Your task to perform on an android device: change your default location settings in chrome Image 0: 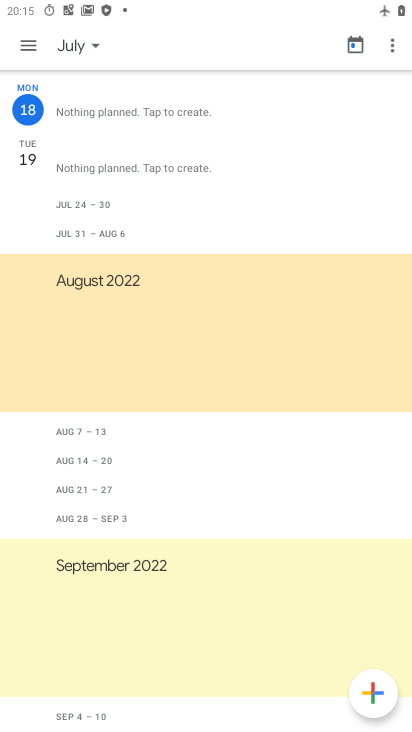
Step 0: press home button
Your task to perform on an android device: change your default location settings in chrome Image 1: 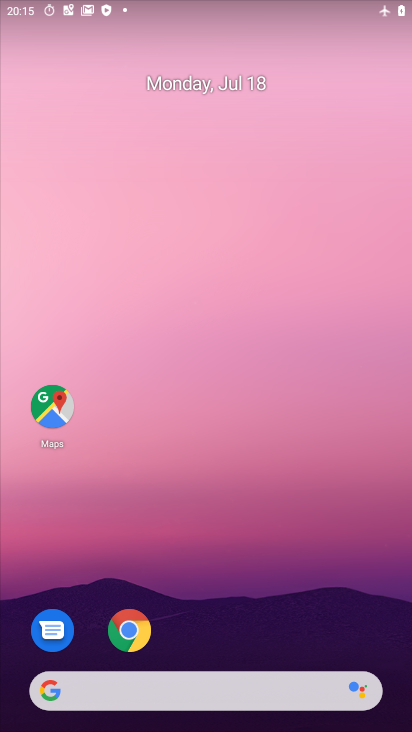
Step 1: drag from (294, 547) to (326, 115)
Your task to perform on an android device: change your default location settings in chrome Image 2: 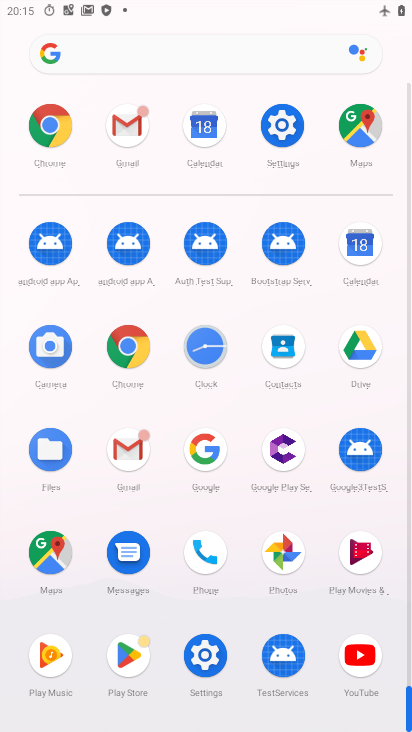
Step 2: click (54, 117)
Your task to perform on an android device: change your default location settings in chrome Image 3: 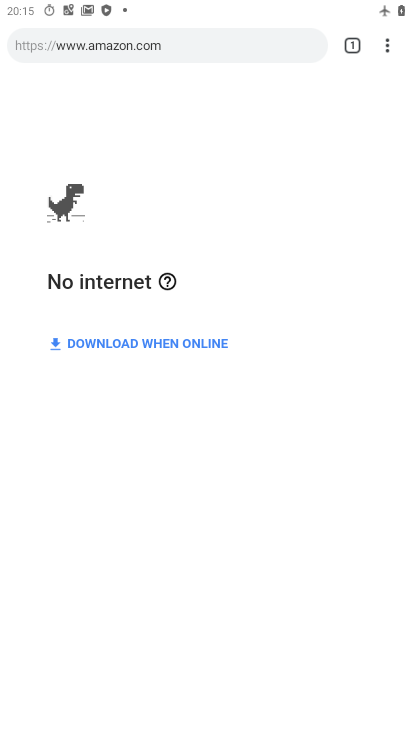
Step 3: drag from (380, 45) to (202, 517)
Your task to perform on an android device: change your default location settings in chrome Image 4: 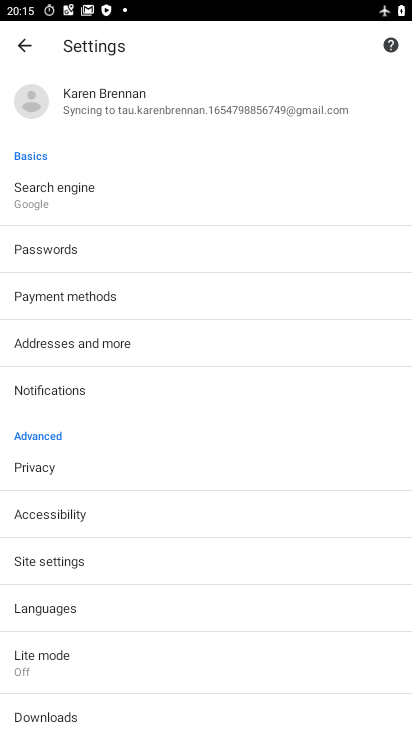
Step 4: click (87, 196)
Your task to perform on an android device: change your default location settings in chrome Image 5: 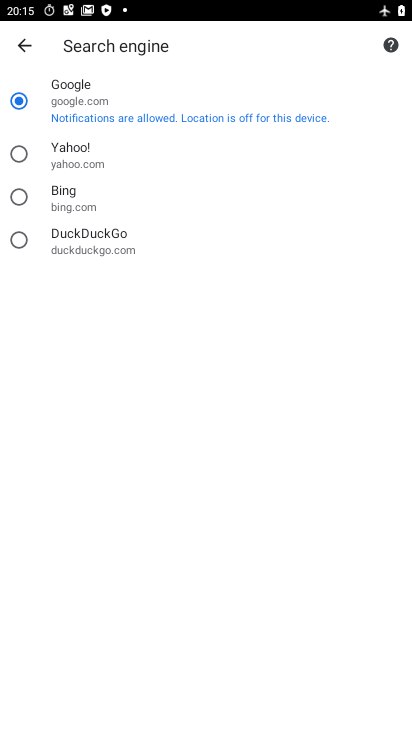
Step 5: task complete